Your task to perform on an android device: turn notification dots on Image 0: 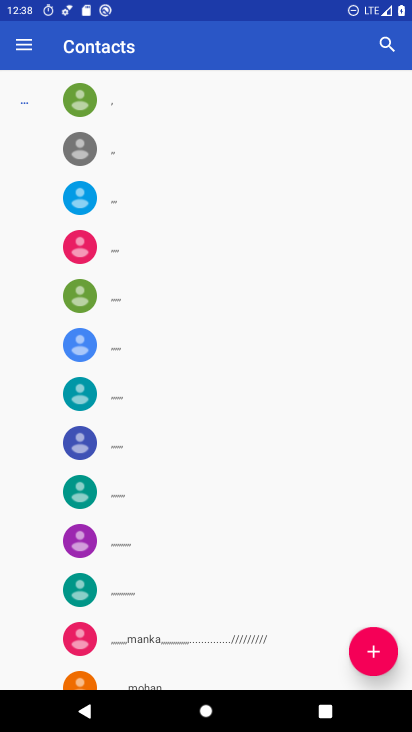
Step 0: press home button
Your task to perform on an android device: turn notification dots on Image 1: 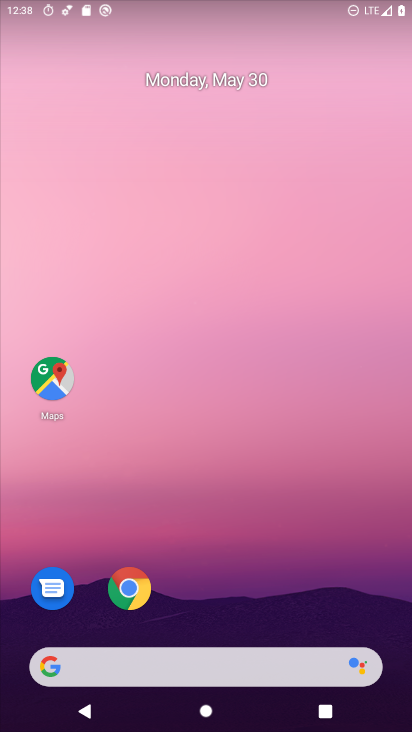
Step 1: drag from (291, 607) to (396, 179)
Your task to perform on an android device: turn notification dots on Image 2: 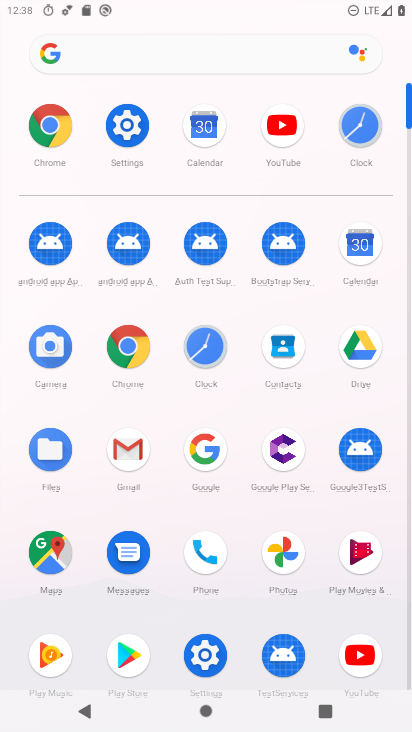
Step 2: click (201, 657)
Your task to perform on an android device: turn notification dots on Image 3: 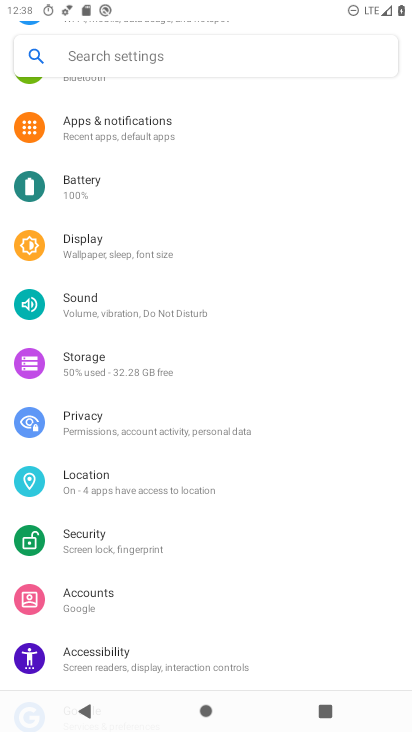
Step 3: click (233, 127)
Your task to perform on an android device: turn notification dots on Image 4: 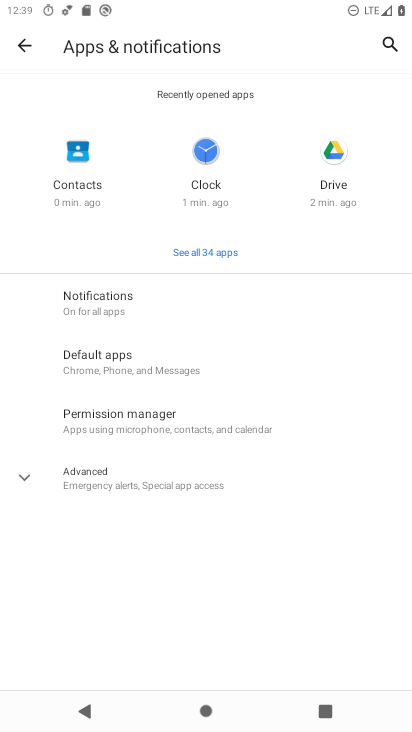
Step 4: click (169, 308)
Your task to perform on an android device: turn notification dots on Image 5: 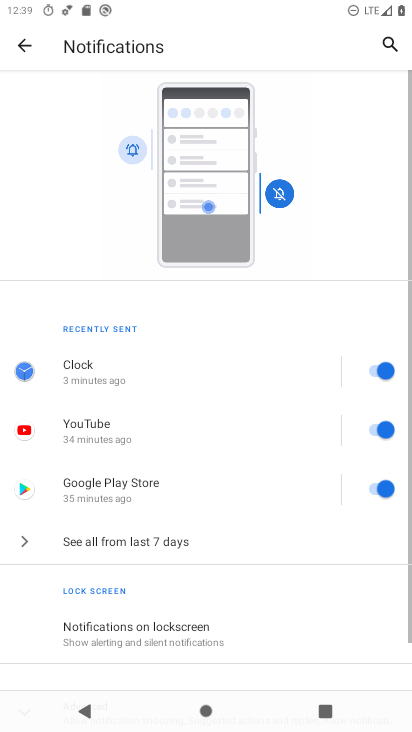
Step 5: drag from (214, 603) to (236, 189)
Your task to perform on an android device: turn notification dots on Image 6: 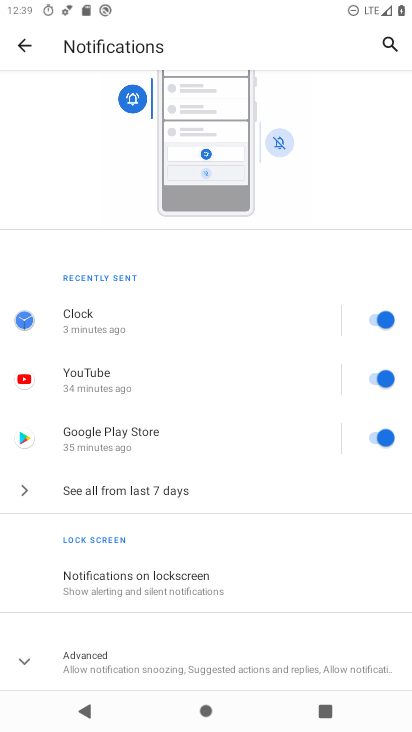
Step 6: click (155, 664)
Your task to perform on an android device: turn notification dots on Image 7: 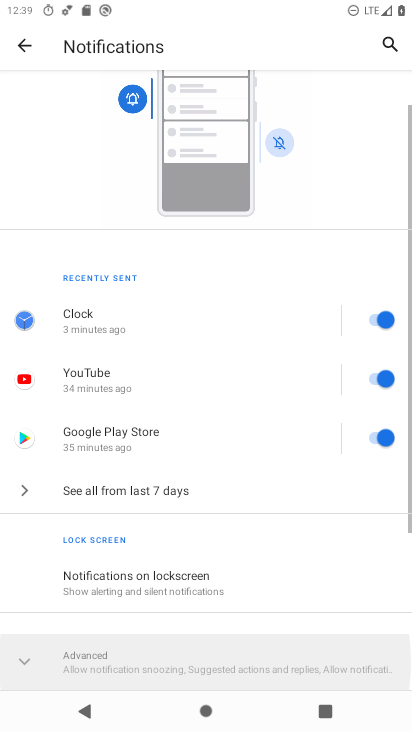
Step 7: task complete